Your task to perform on an android device: Go to Google maps Image 0: 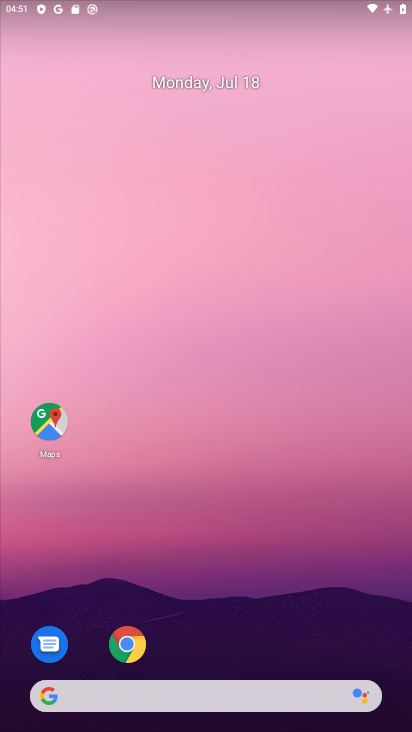
Step 0: press home button
Your task to perform on an android device: Go to Google maps Image 1: 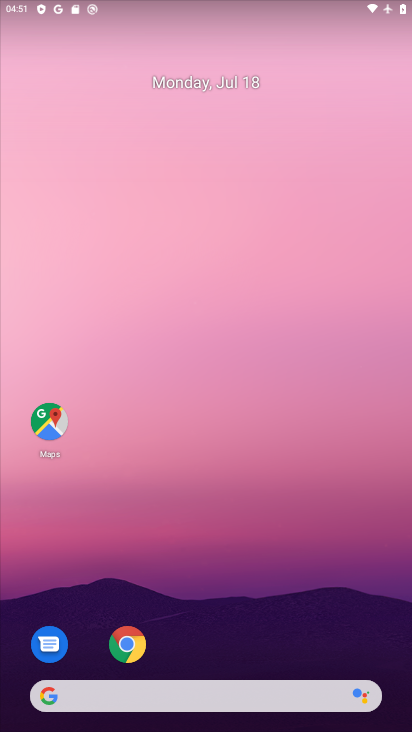
Step 1: drag from (231, 651) to (208, 69)
Your task to perform on an android device: Go to Google maps Image 2: 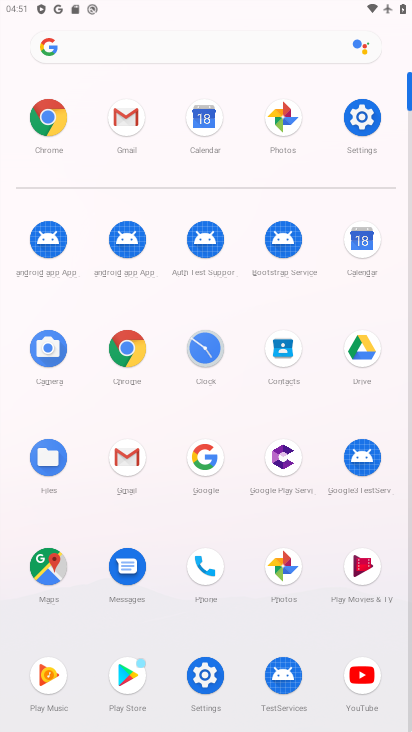
Step 2: click (47, 571)
Your task to perform on an android device: Go to Google maps Image 3: 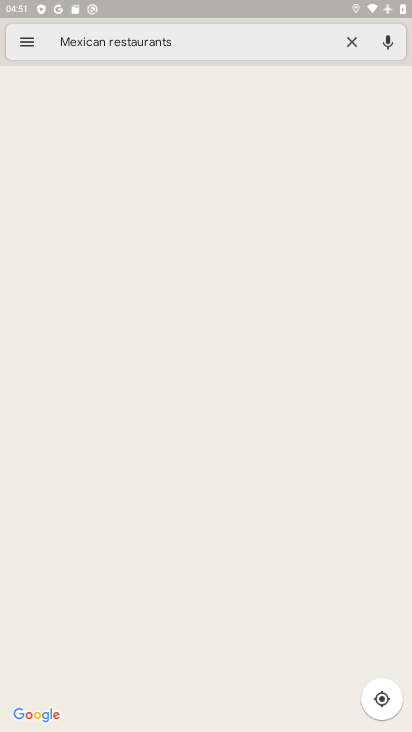
Step 3: click (350, 32)
Your task to perform on an android device: Go to Google maps Image 4: 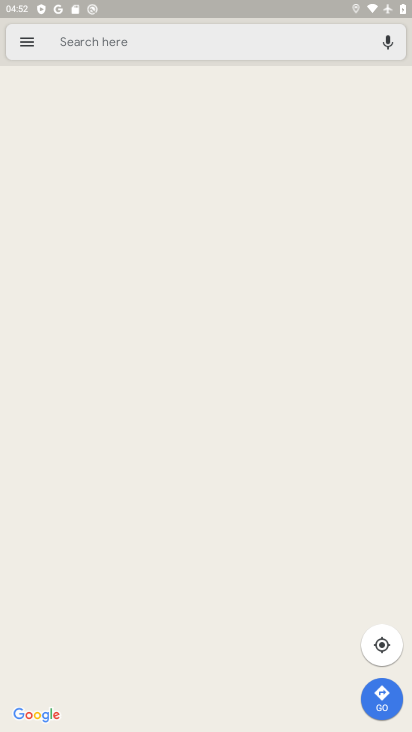
Step 4: task complete